Your task to perform on an android device: Search for "razer thresher" on newegg.com, select the first entry, and add it to the cart. Image 0: 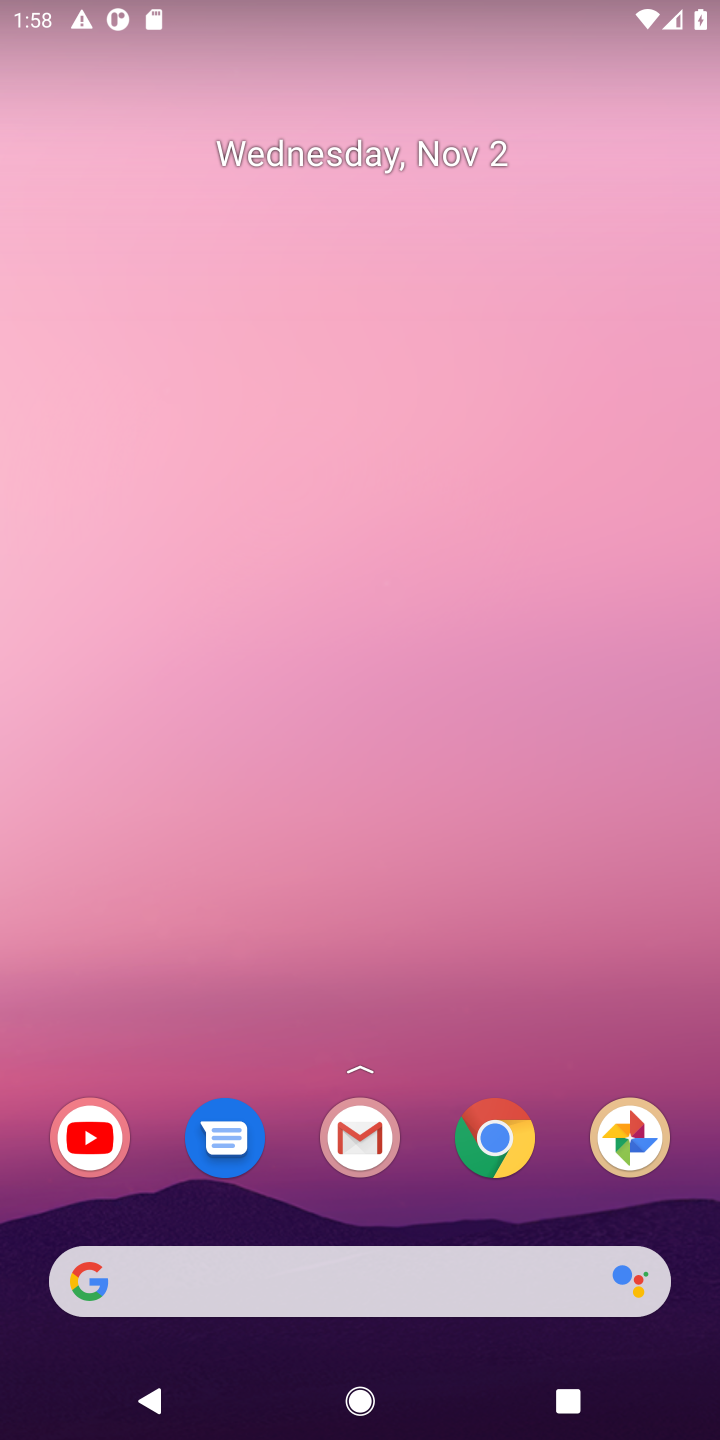
Step 0: press home button
Your task to perform on an android device: Search for "razer thresher" on newegg.com, select the first entry, and add it to the cart. Image 1: 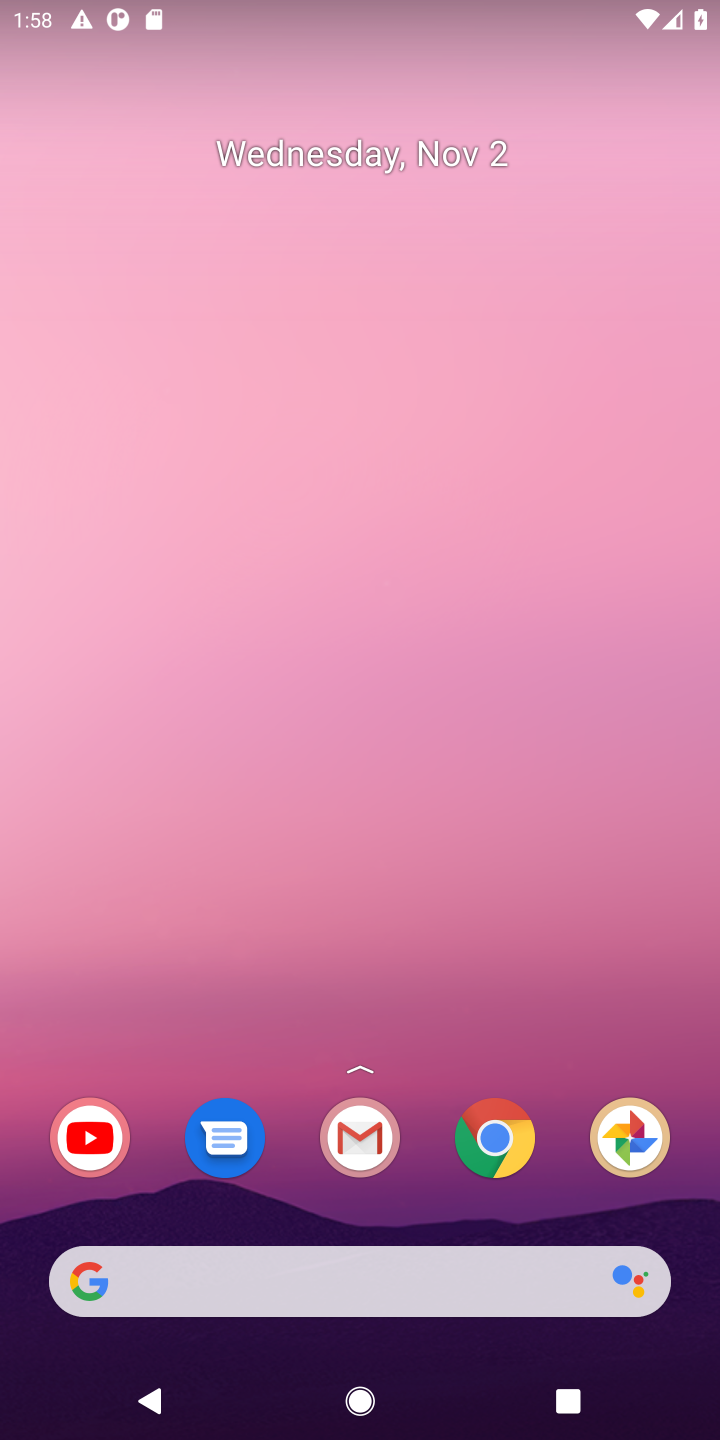
Step 1: click (136, 1268)
Your task to perform on an android device: Search for "razer thresher" on newegg.com, select the first entry, and add it to the cart. Image 2: 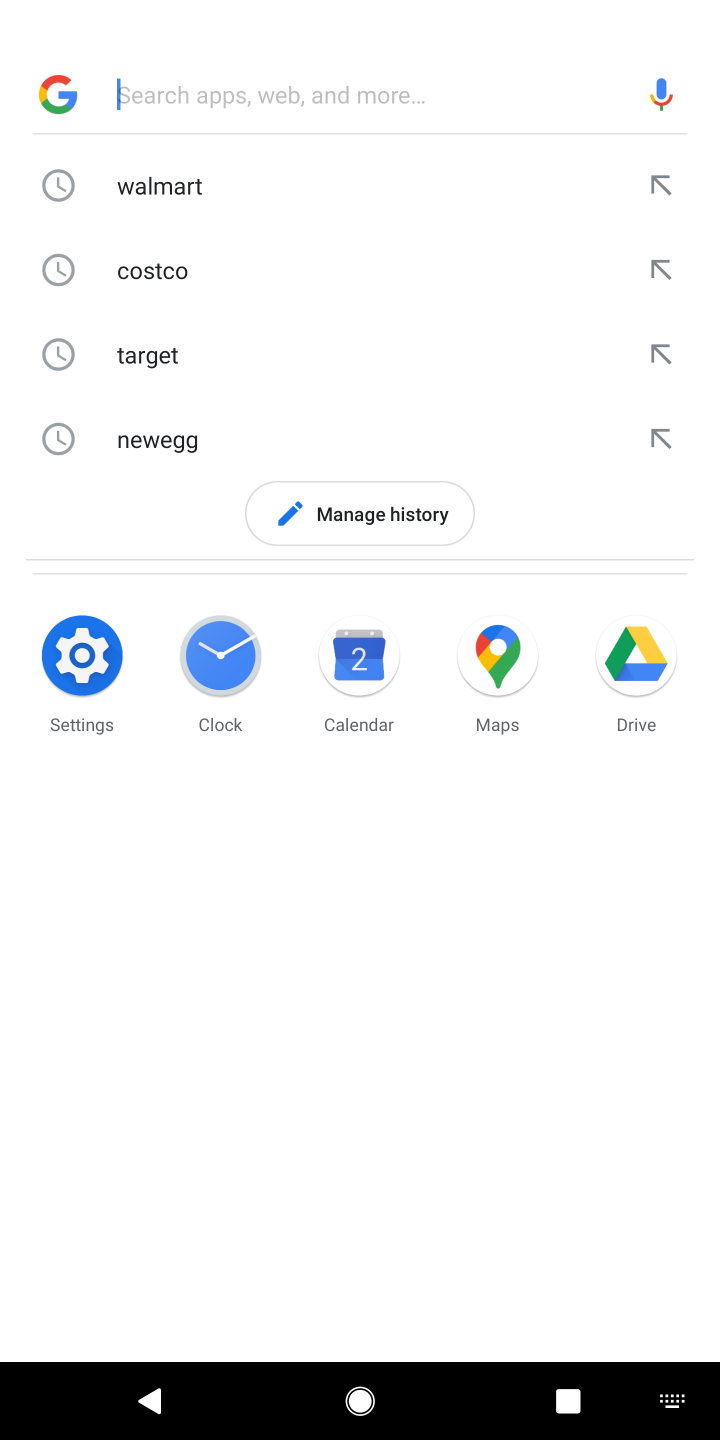
Step 2: type "newegg.com"
Your task to perform on an android device: Search for "razer thresher" on newegg.com, select the first entry, and add it to the cart. Image 3: 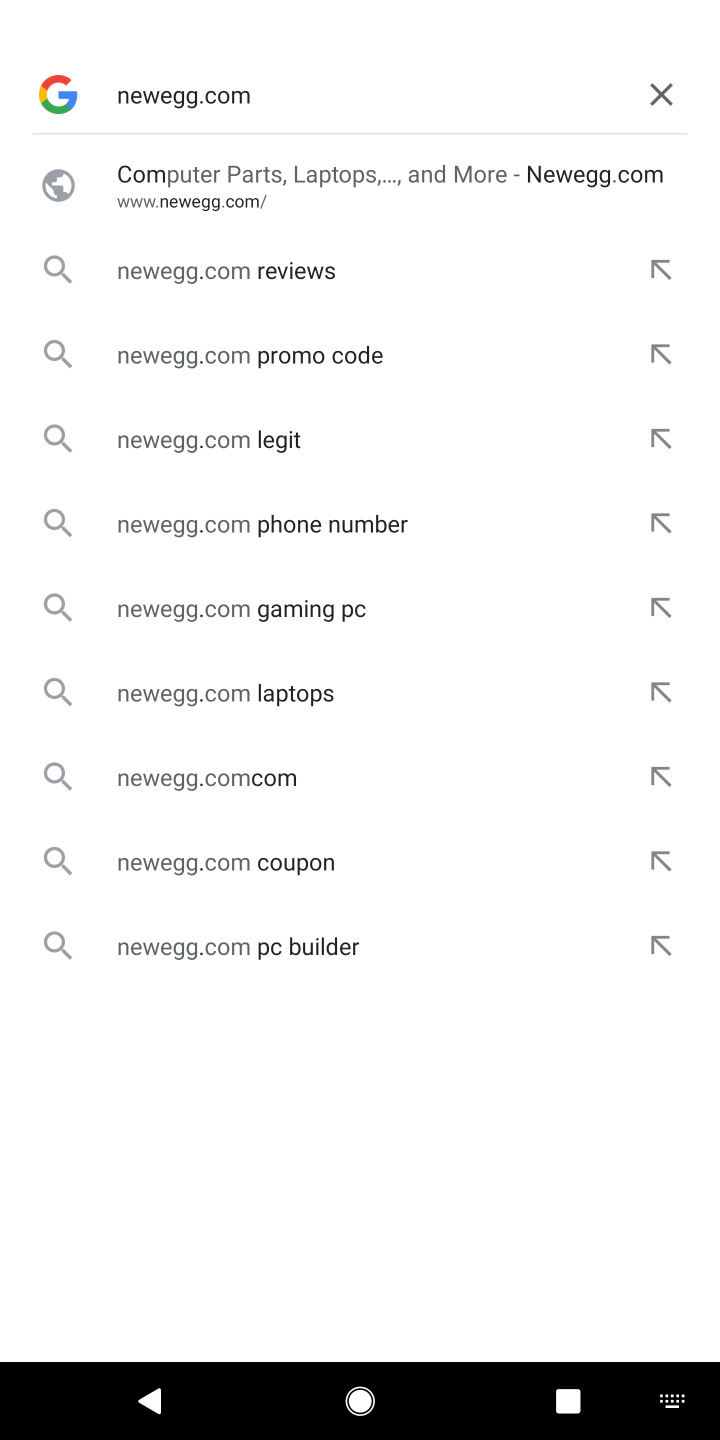
Step 3: press enter
Your task to perform on an android device: Search for "razer thresher" on newegg.com, select the first entry, and add it to the cart. Image 4: 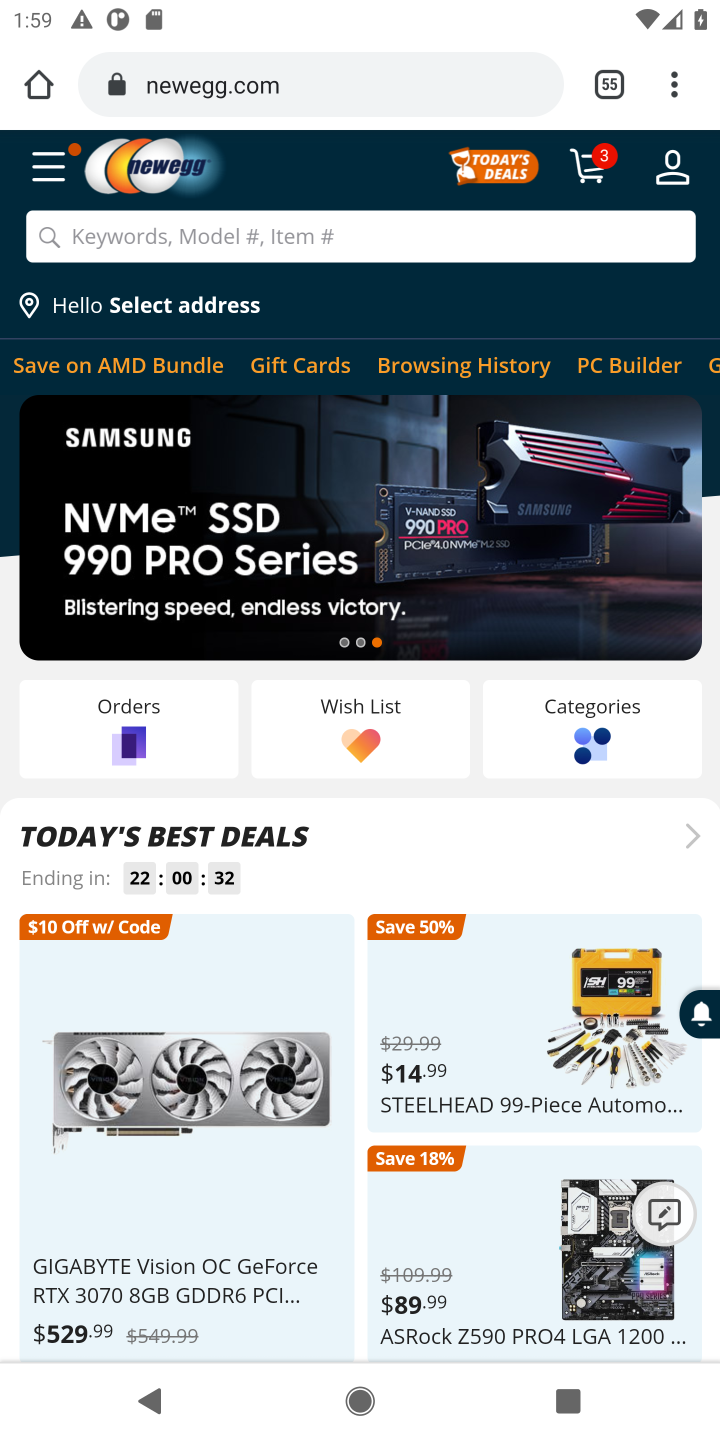
Step 4: click (167, 230)
Your task to perform on an android device: Search for "razer thresher" on newegg.com, select the first entry, and add it to the cart. Image 5: 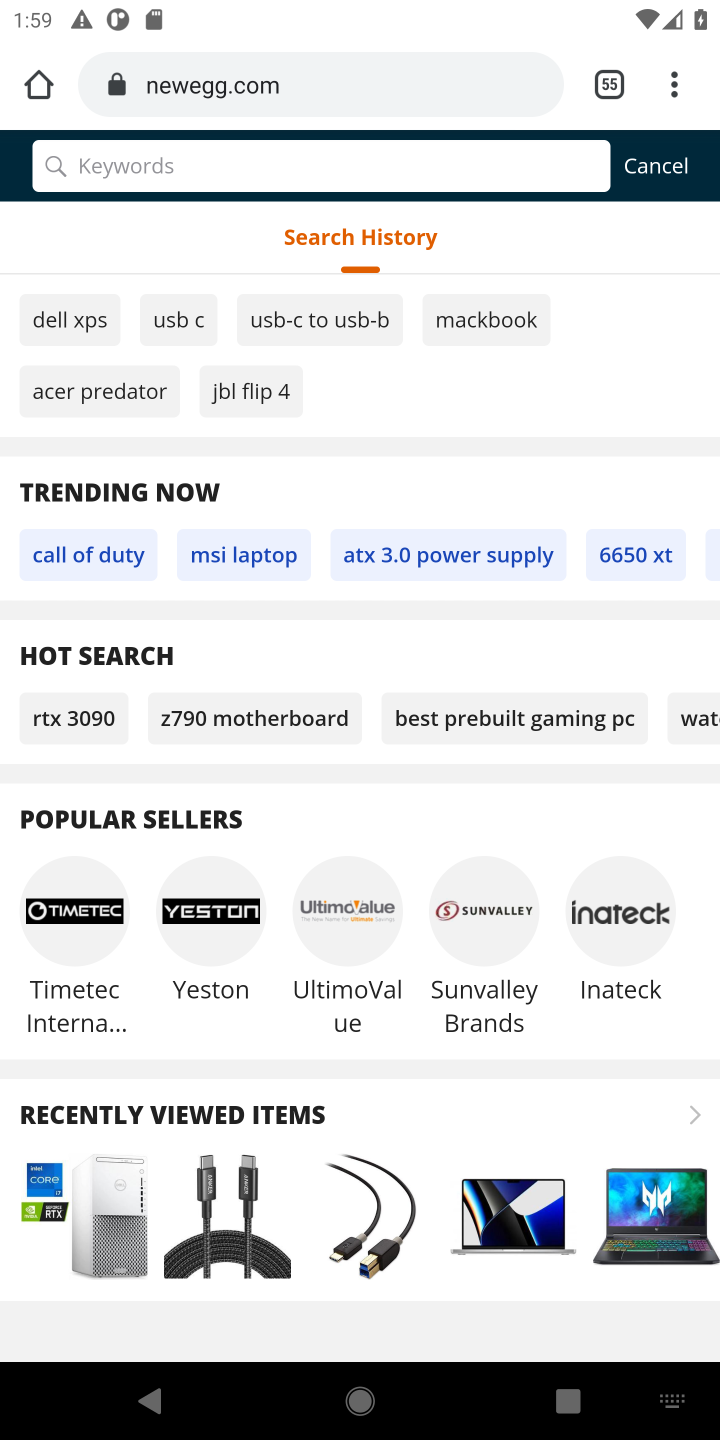
Step 5: press enter
Your task to perform on an android device: Search for "razer thresher" on newegg.com, select the first entry, and add it to the cart. Image 6: 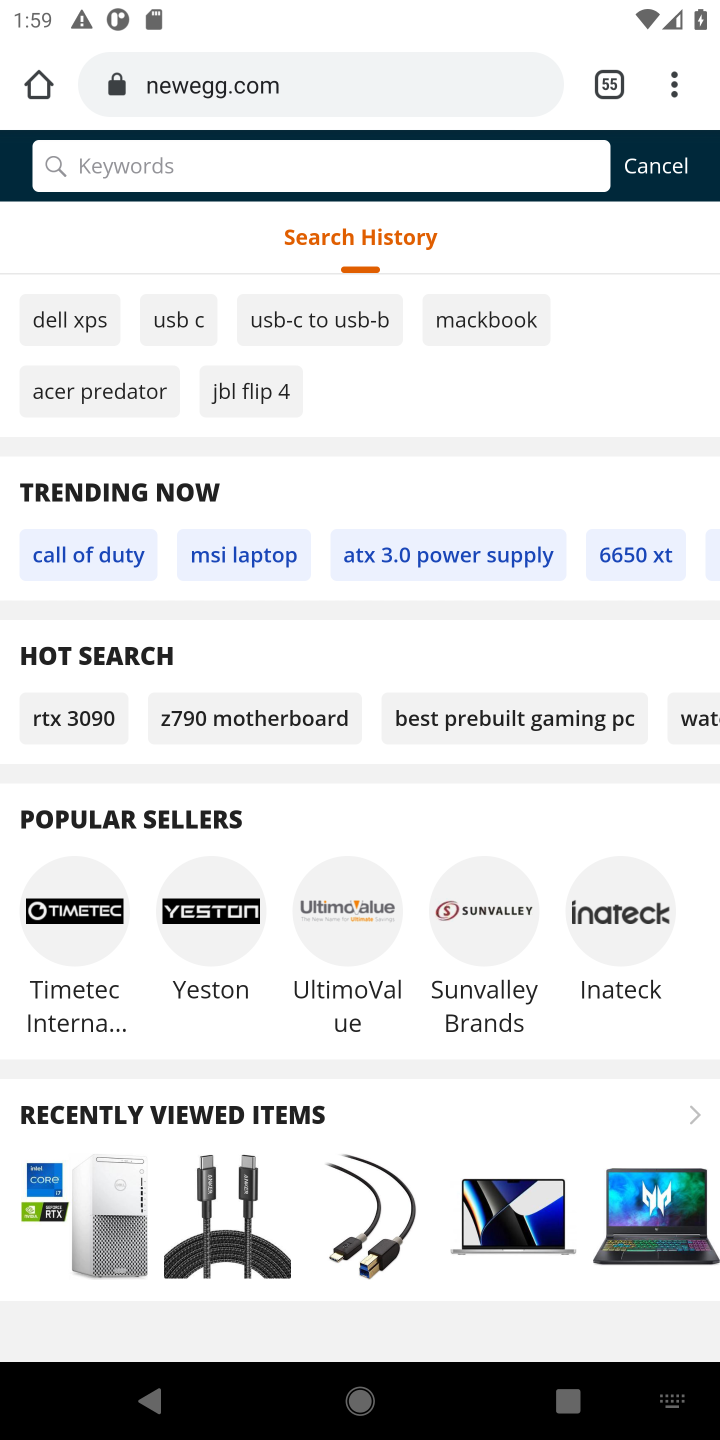
Step 6: type "razer thresher"
Your task to perform on an android device: Search for "razer thresher" on newegg.com, select the first entry, and add it to the cart. Image 7: 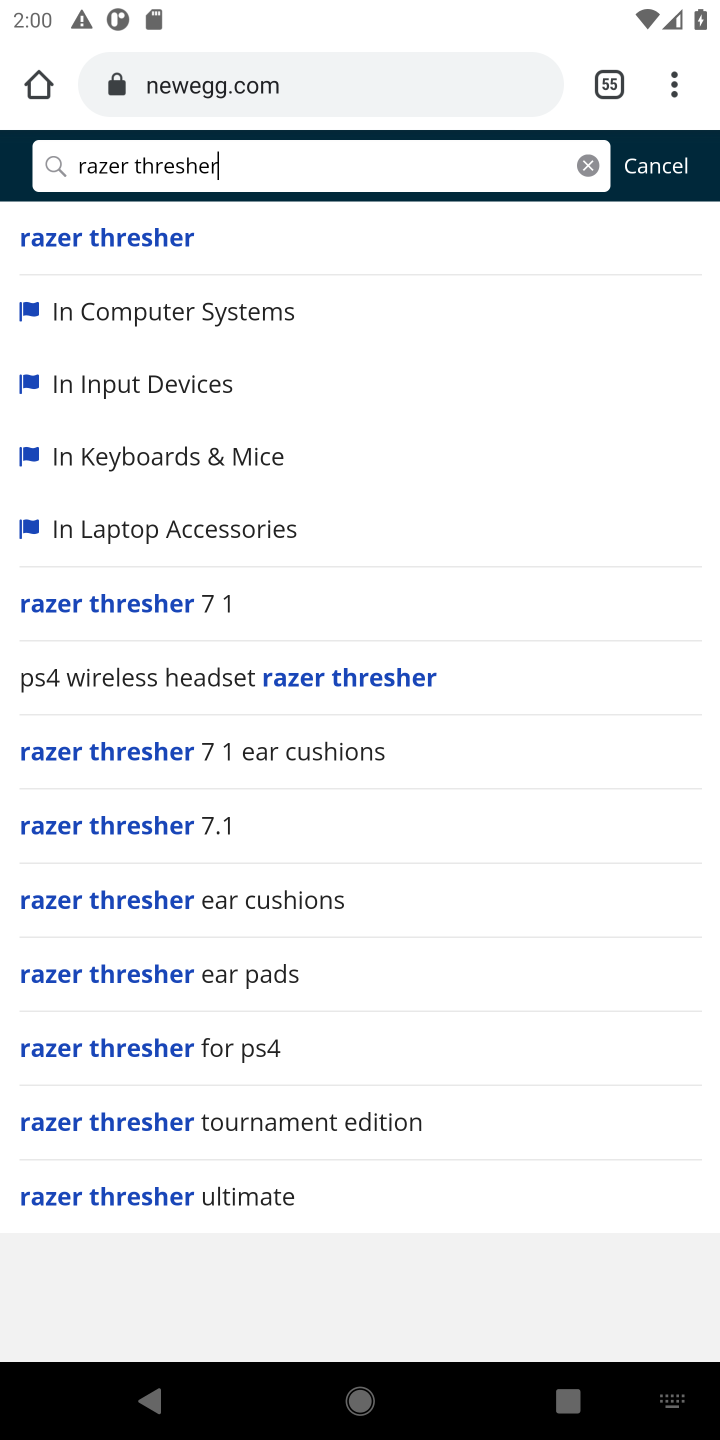
Step 7: click (146, 241)
Your task to perform on an android device: Search for "razer thresher" on newegg.com, select the first entry, and add it to the cart. Image 8: 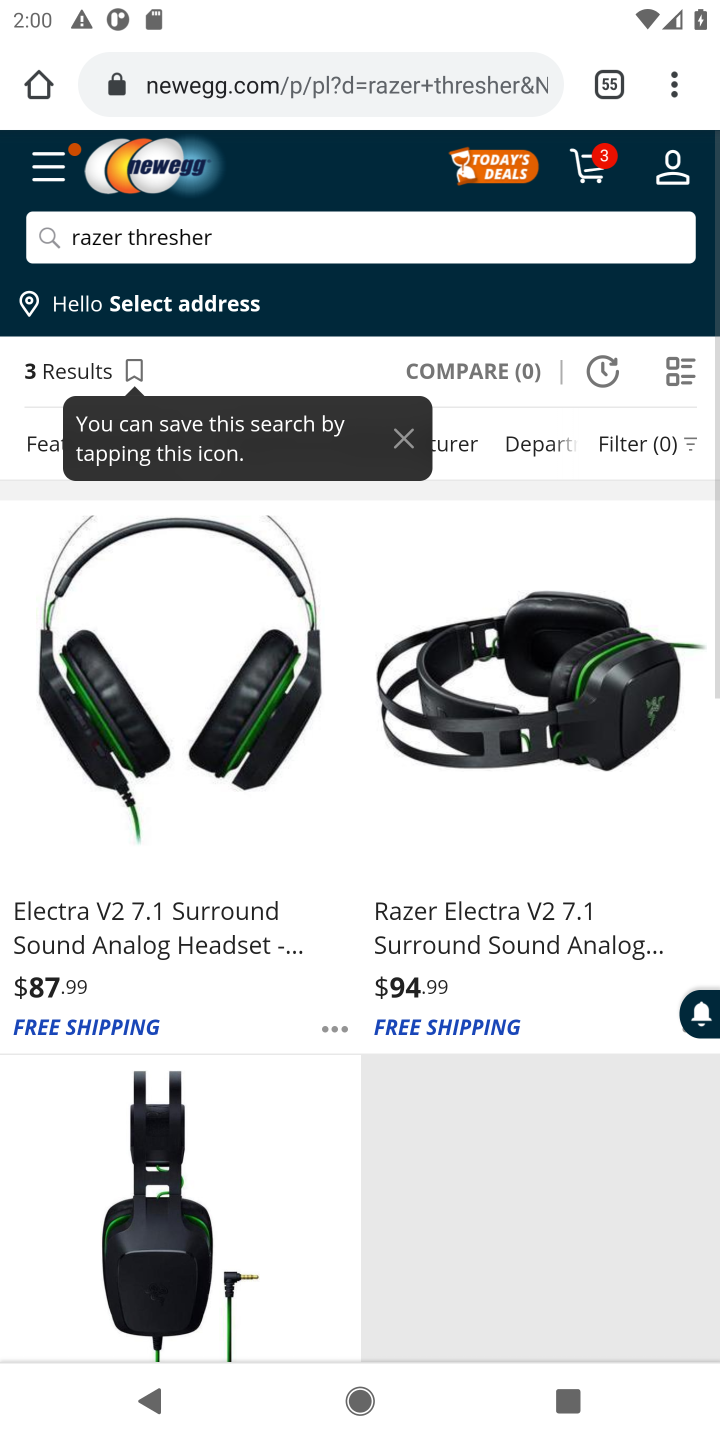
Step 8: task complete